Your task to perform on an android device: make emails show in primary in the gmail app Image 0: 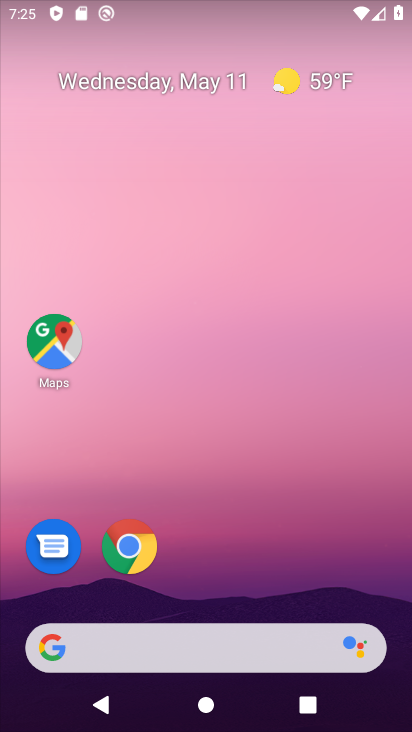
Step 0: drag from (312, 523) to (319, 200)
Your task to perform on an android device: make emails show in primary in the gmail app Image 1: 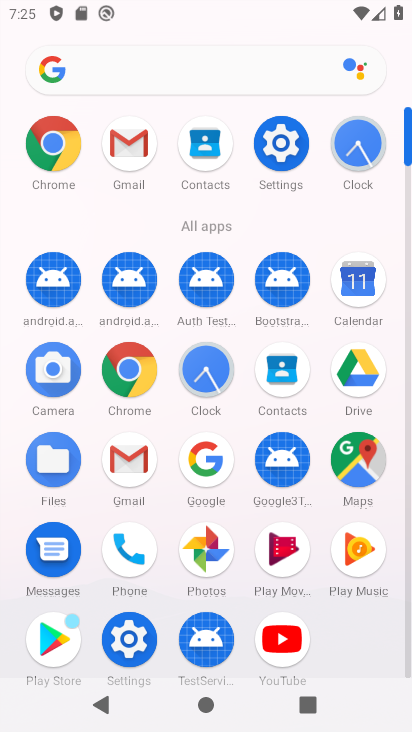
Step 1: click (132, 465)
Your task to perform on an android device: make emails show in primary in the gmail app Image 2: 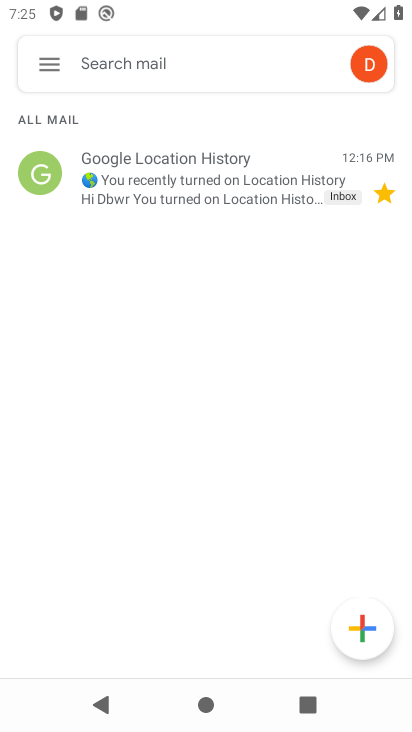
Step 2: click (56, 67)
Your task to perform on an android device: make emails show in primary in the gmail app Image 3: 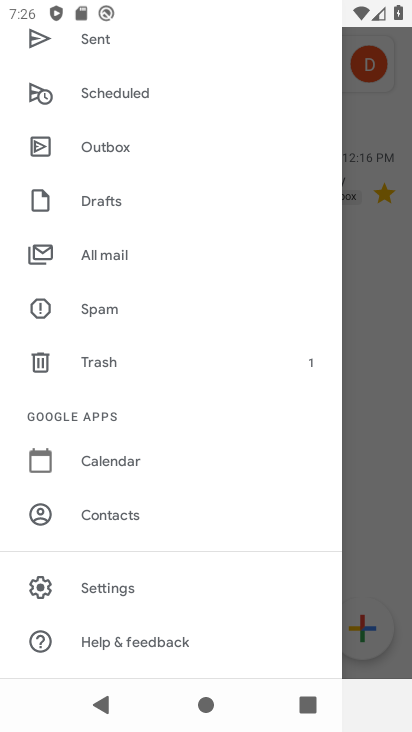
Step 3: click (130, 586)
Your task to perform on an android device: make emails show in primary in the gmail app Image 4: 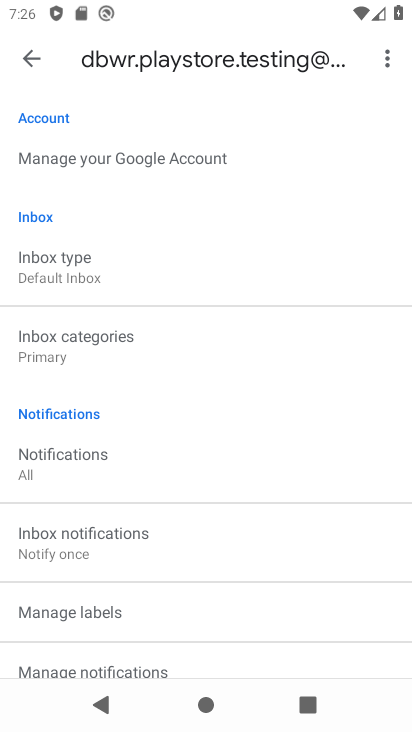
Step 4: task complete